Your task to perform on an android device: open chrome privacy settings Image 0: 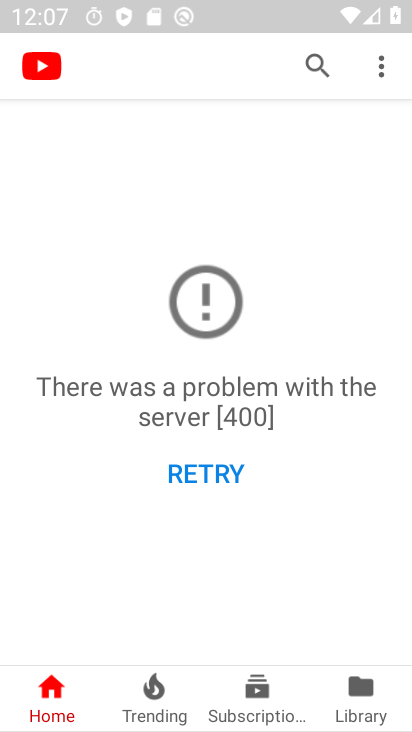
Step 0: press back button
Your task to perform on an android device: open chrome privacy settings Image 1: 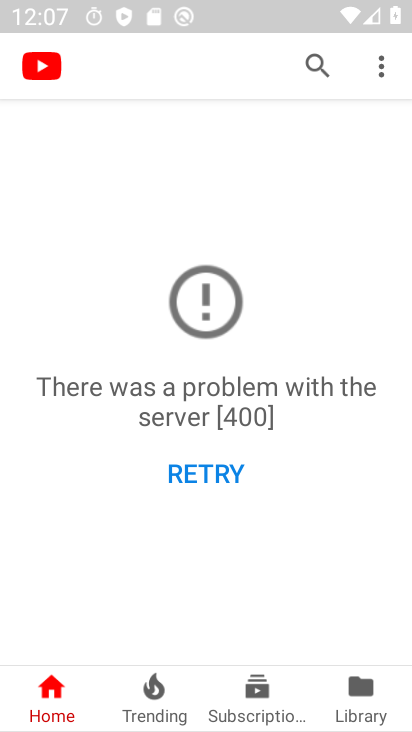
Step 1: press back button
Your task to perform on an android device: open chrome privacy settings Image 2: 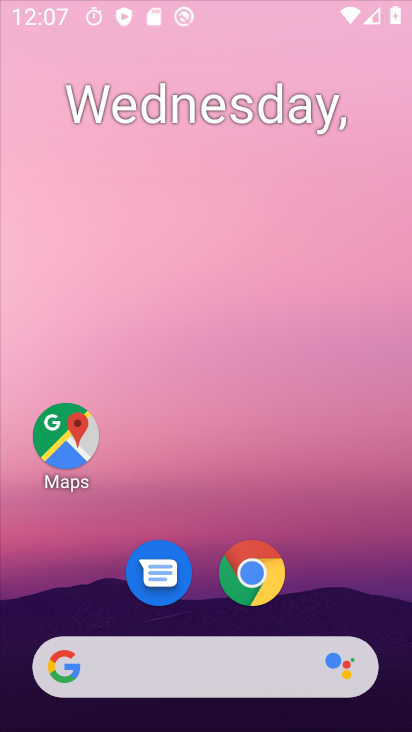
Step 2: press back button
Your task to perform on an android device: open chrome privacy settings Image 3: 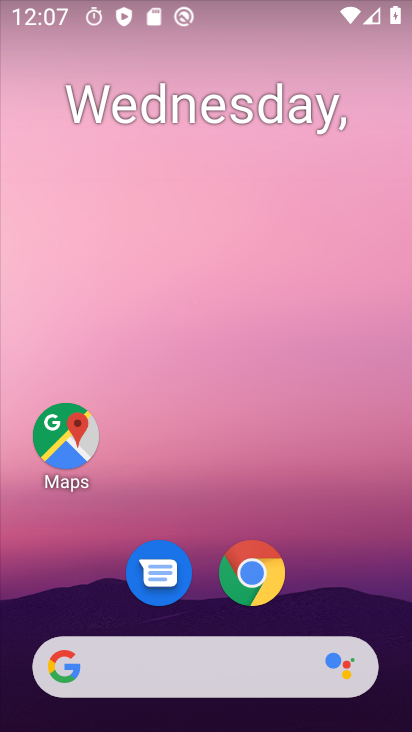
Step 3: drag from (369, 636) to (194, 86)
Your task to perform on an android device: open chrome privacy settings Image 4: 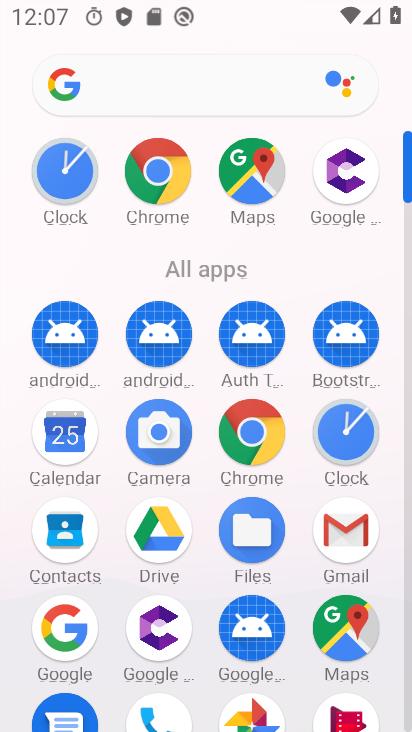
Step 4: drag from (312, 512) to (312, 129)
Your task to perform on an android device: open chrome privacy settings Image 5: 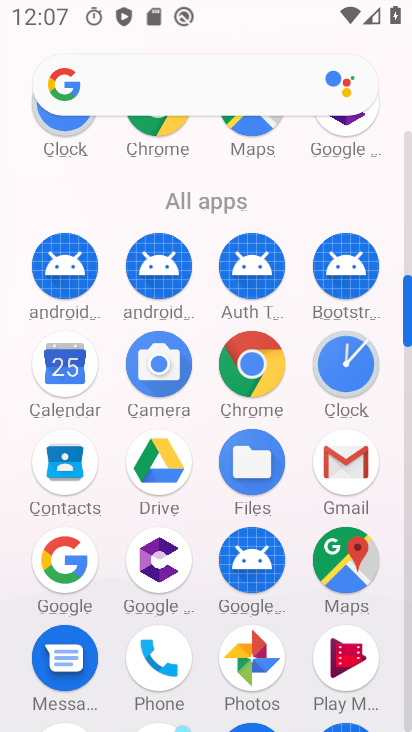
Step 5: drag from (332, 454) to (285, 141)
Your task to perform on an android device: open chrome privacy settings Image 6: 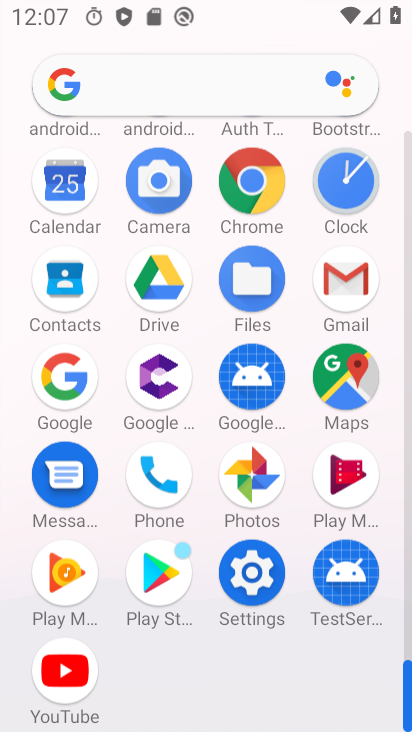
Step 6: drag from (285, 524) to (285, 139)
Your task to perform on an android device: open chrome privacy settings Image 7: 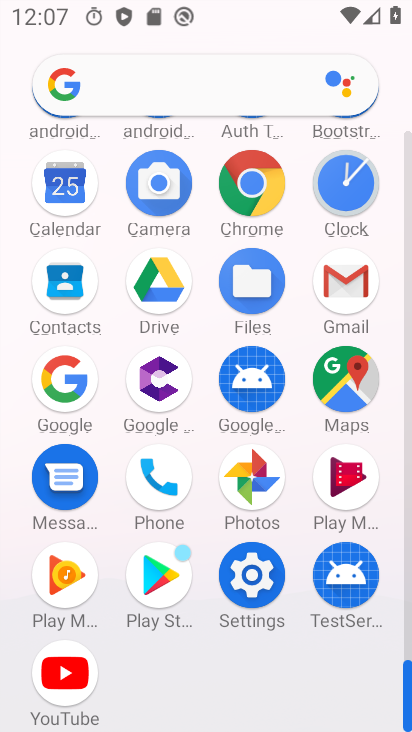
Step 7: click (251, 582)
Your task to perform on an android device: open chrome privacy settings Image 8: 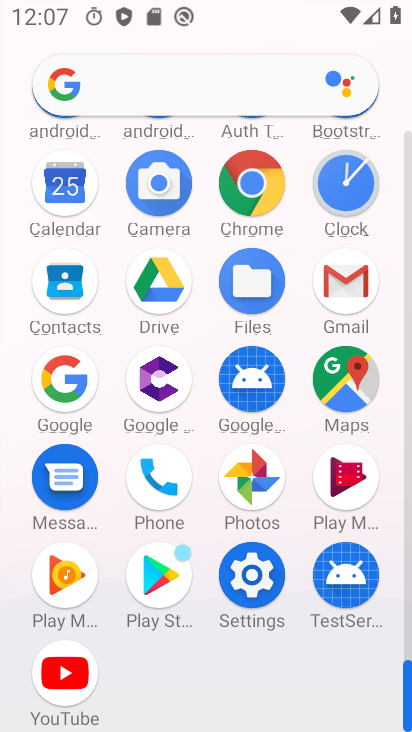
Step 8: click (252, 581)
Your task to perform on an android device: open chrome privacy settings Image 9: 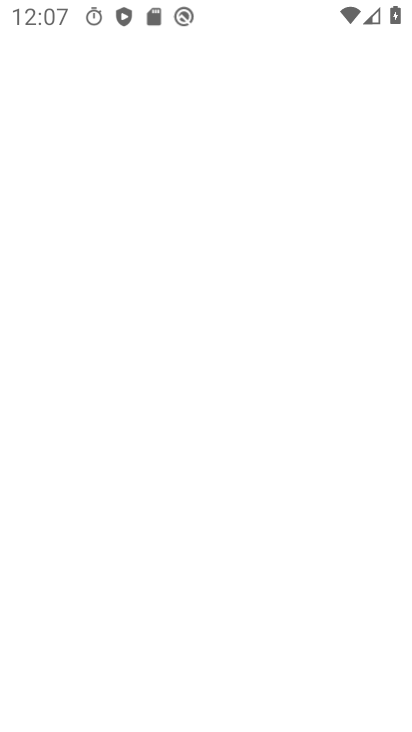
Step 9: click (256, 581)
Your task to perform on an android device: open chrome privacy settings Image 10: 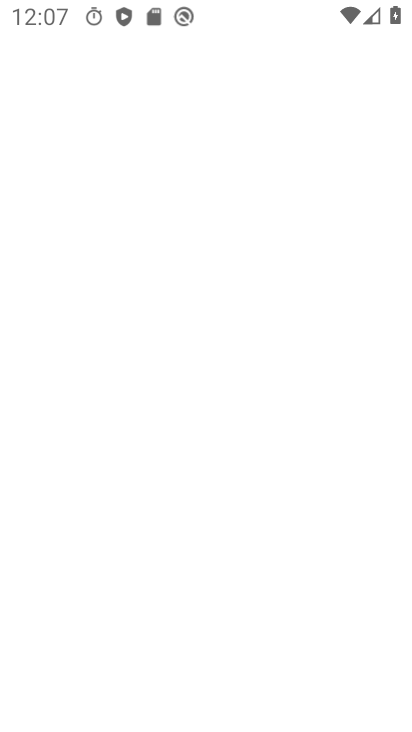
Step 10: click (256, 581)
Your task to perform on an android device: open chrome privacy settings Image 11: 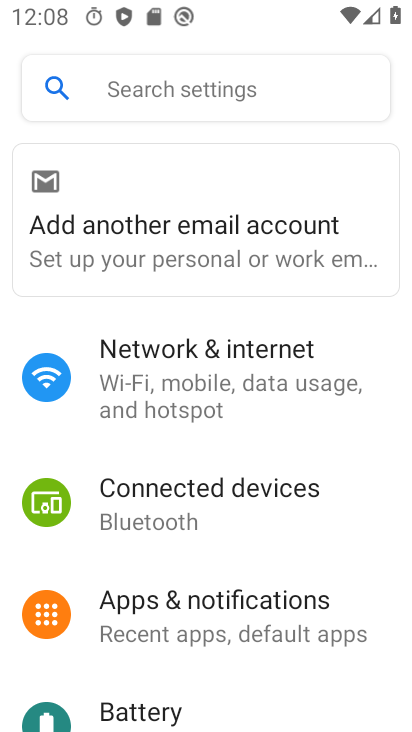
Step 11: press back button
Your task to perform on an android device: open chrome privacy settings Image 12: 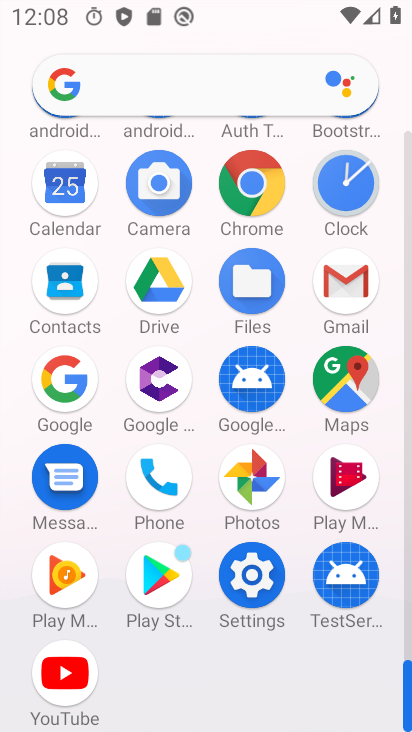
Step 12: press home button
Your task to perform on an android device: open chrome privacy settings Image 13: 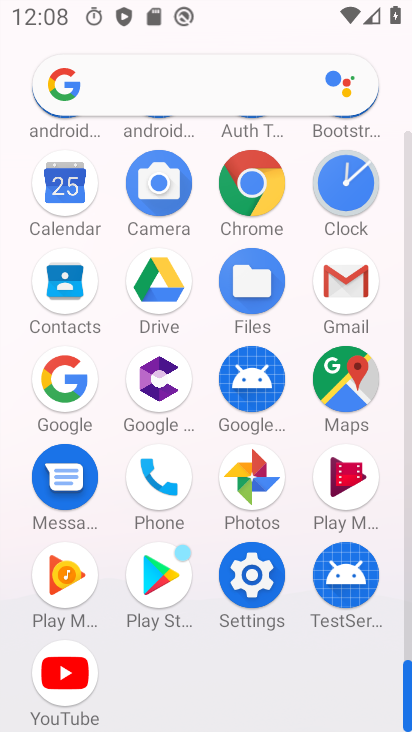
Step 13: press home button
Your task to perform on an android device: open chrome privacy settings Image 14: 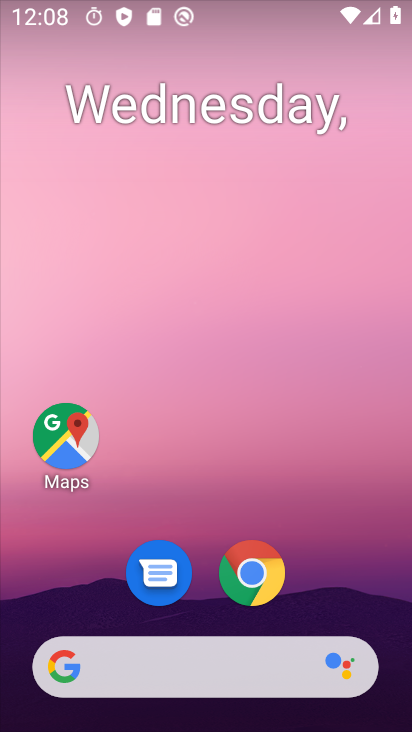
Step 14: press home button
Your task to perform on an android device: open chrome privacy settings Image 15: 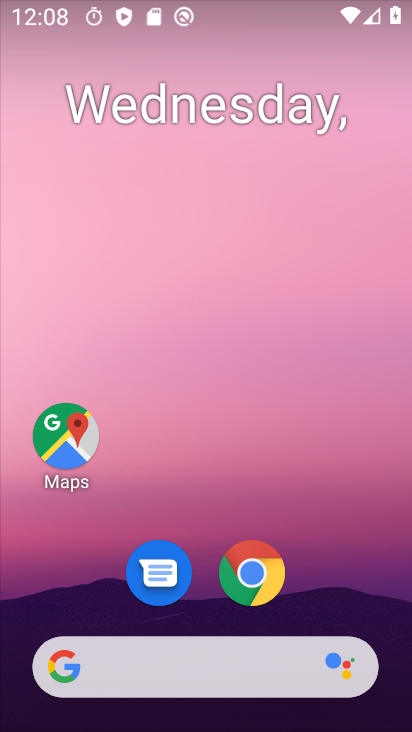
Step 15: press back button
Your task to perform on an android device: open chrome privacy settings Image 16: 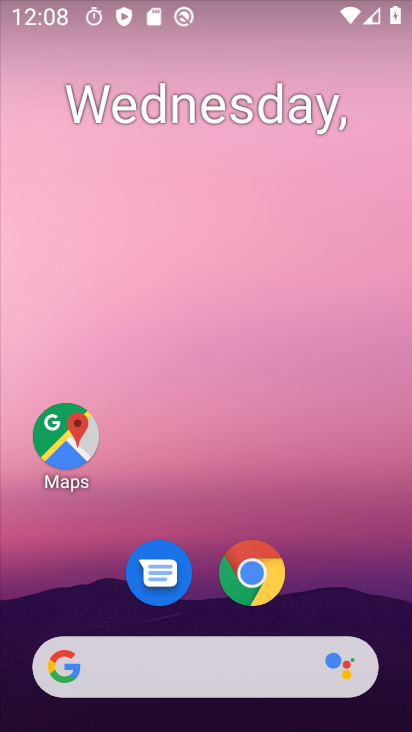
Step 16: press back button
Your task to perform on an android device: open chrome privacy settings Image 17: 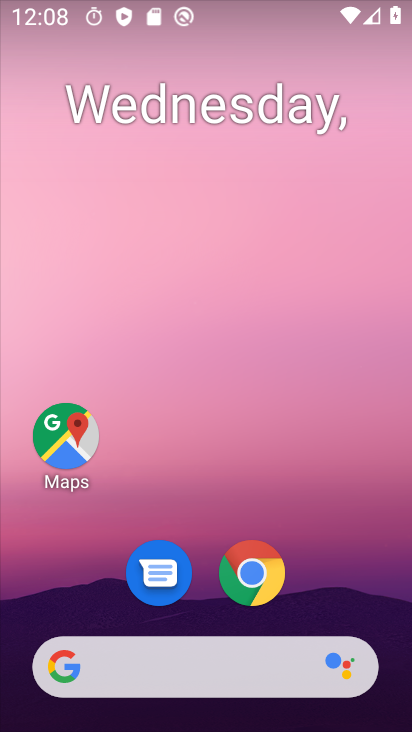
Step 17: drag from (367, 612) to (85, 22)
Your task to perform on an android device: open chrome privacy settings Image 18: 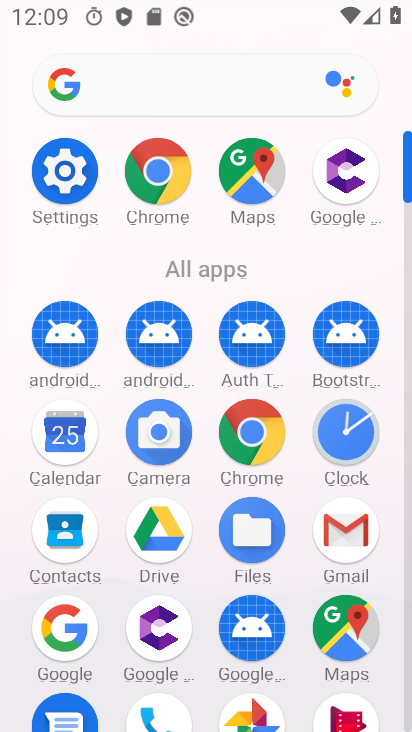
Step 18: click (46, 189)
Your task to perform on an android device: open chrome privacy settings Image 19: 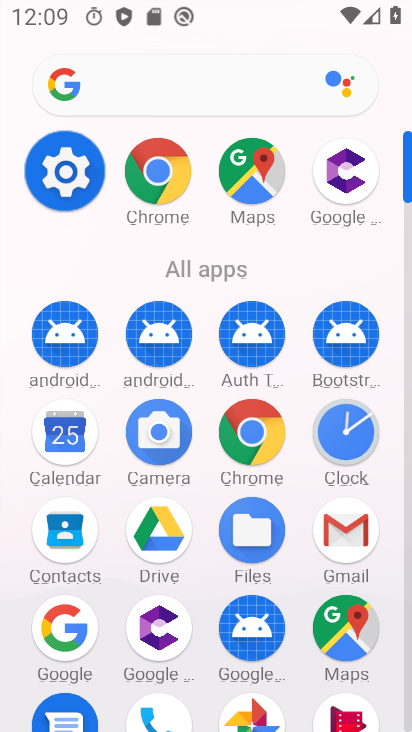
Step 19: click (56, 177)
Your task to perform on an android device: open chrome privacy settings Image 20: 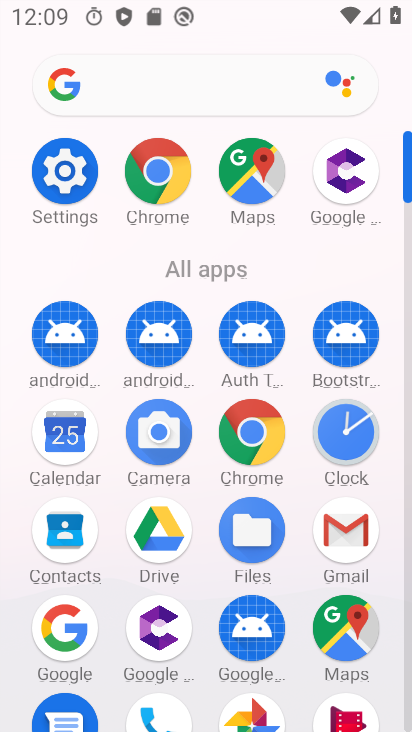
Step 20: click (55, 166)
Your task to perform on an android device: open chrome privacy settings Image 21: 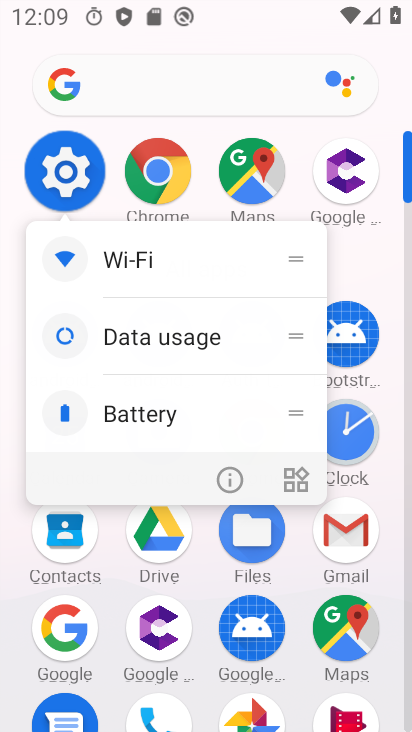
Step 21: click (55, 165)
Your task to perform on an android device: open chrome privacy settings Image 22: 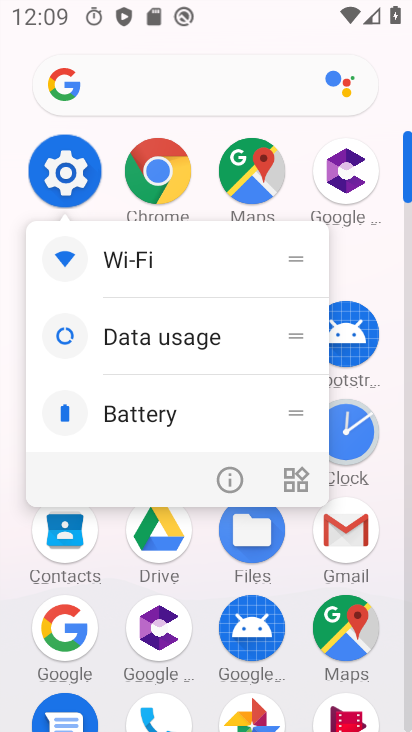
Step 22: click (55, 164)
Your task to perform on an android device: open chrome privacy settings Image 23: 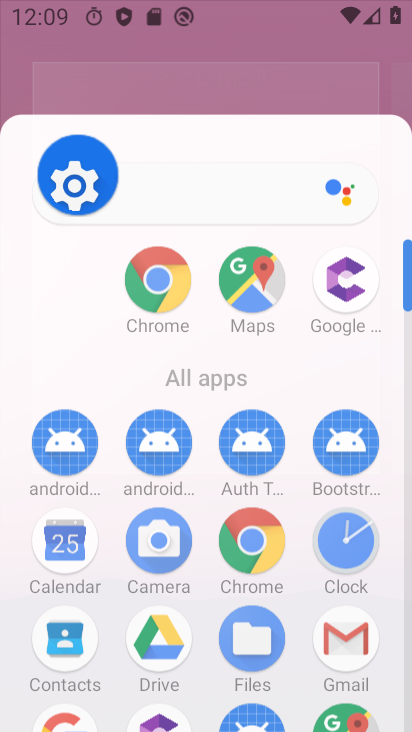
Step 23: click (74, 163)
Your task to perform on an android device: open chrome privacy settings Image 24: 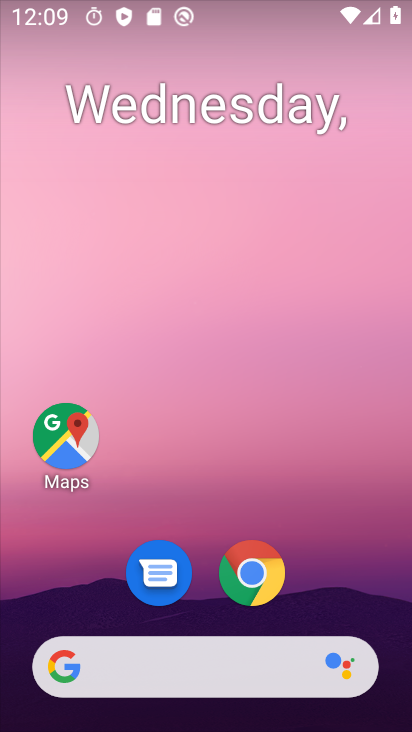
Step 24: click (71, 163)
Your task to perform on an android device: open chrome privacy settings Image 25: 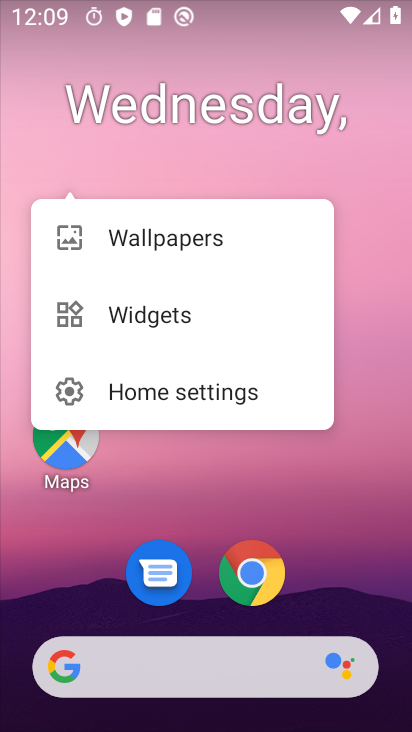
Step 25: drag from (241, 679) to (294, 91)
Your task to perform on an android device: open chrome privacy settings Image 26: 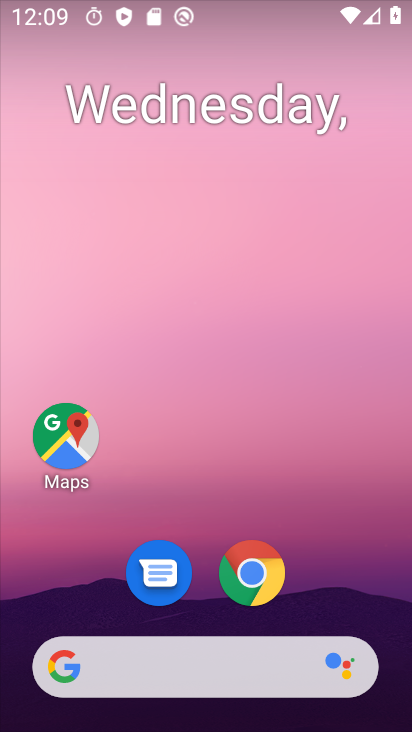
Step 26: drag from (281, 415) to (225, 75)
Your task to perform on an android device: open chrome privacy settings Image 27: 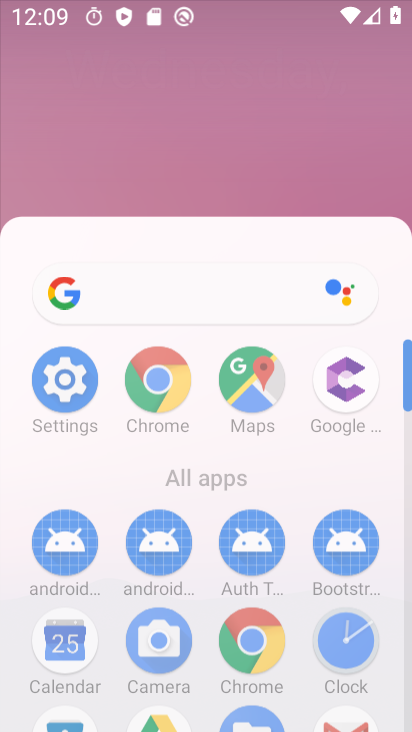
Step 27: drag from (253, 515) to (227, 55)
Your task to perform on an android device: open chrome privacy settings Image 28: 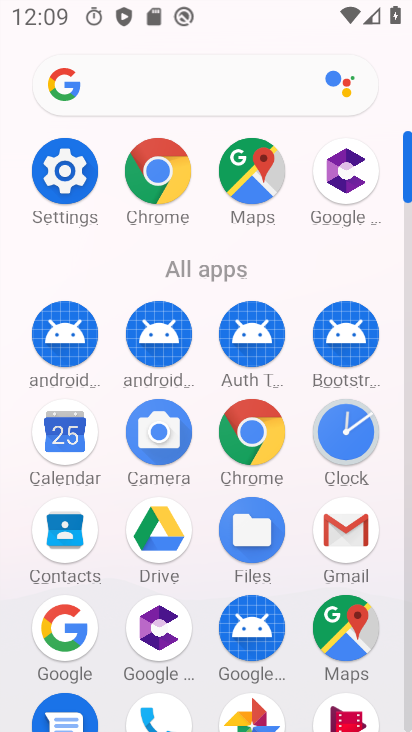
Step 28: drag from (222, 547) to (185, 0)
Your task to perform on an android device: open chrome privacy settings Image 29: 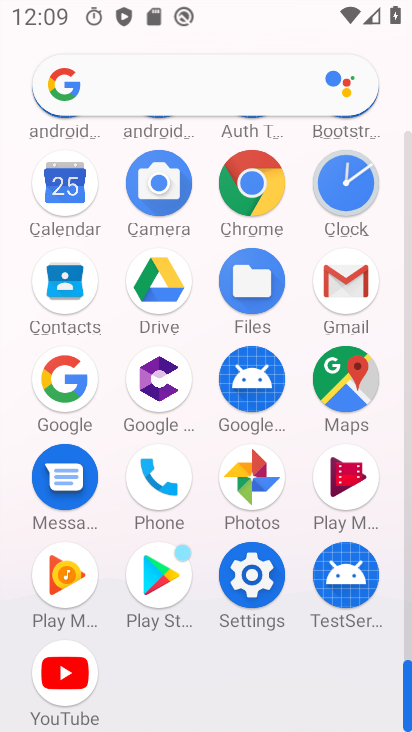
Step 29: click (254, 572)
Your task to perform on an android device: open chrome privacy settings Image 30: 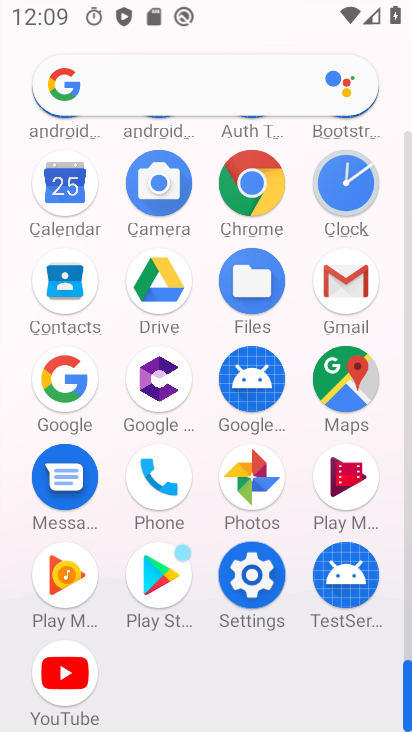
Step 30: click (261, 570)
Your task to perform on an android device: open chrome privacy settings Image 31: 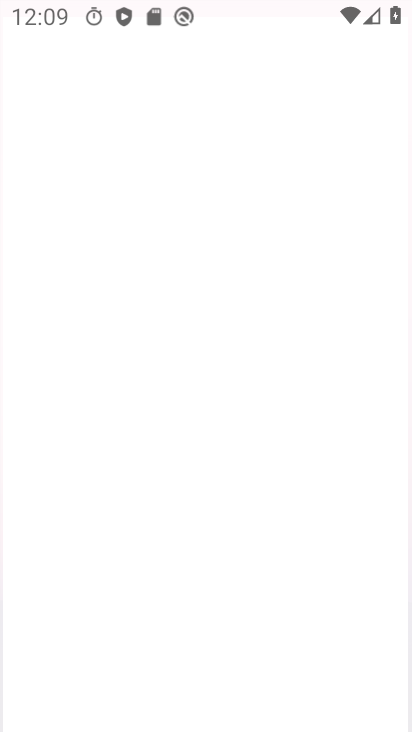
Step 31: click (263, 576)
Your task to perform on an android device: open chrome privacy settings Image 32: 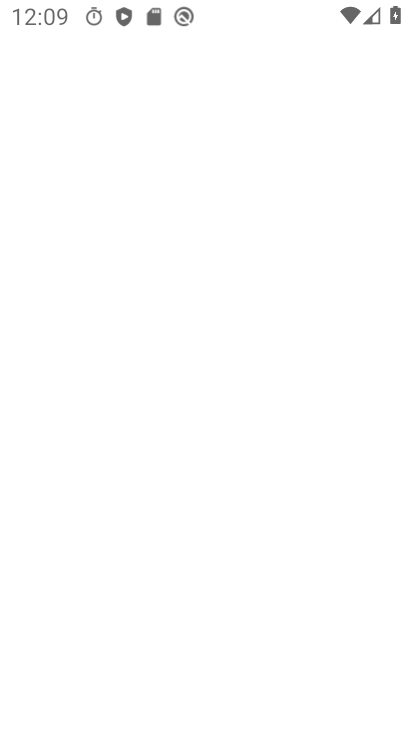
Step 32: click (261, 577)
Your task to perform on an android device: open chrome privacy settings Image 33: 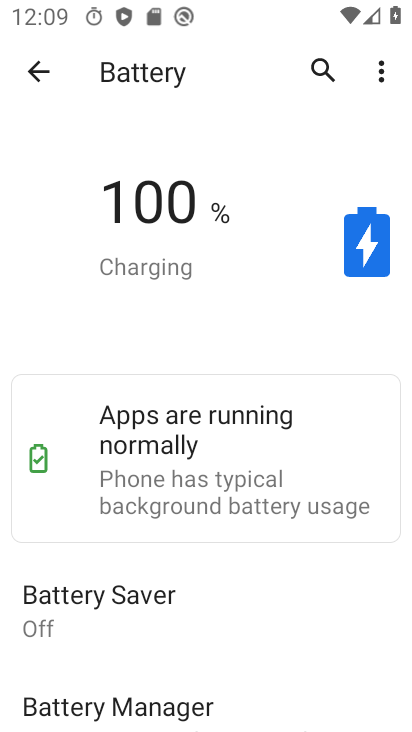
Step 33: task complete